Your task to perform on an android device: Go to eBay Image 0: 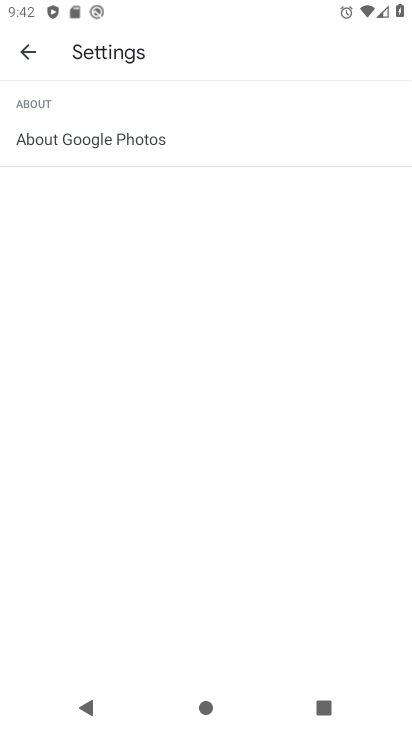
Step 0: press home button
Your task to perform on an android device: Go to eBay Image 1: 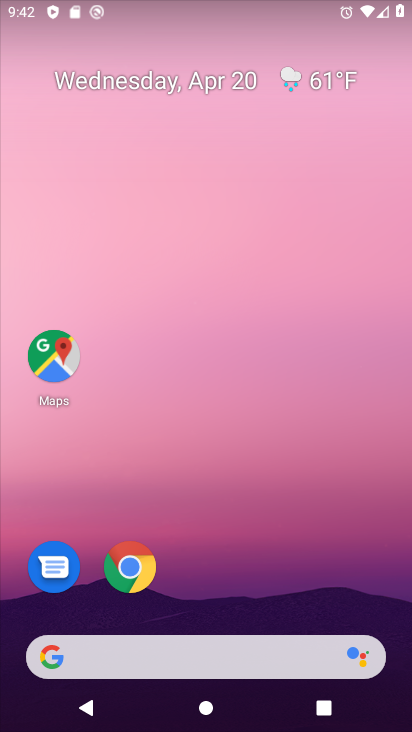
Step 1: click (162, 646)
Your task to perform on an android device: Go to eBay Image 2: 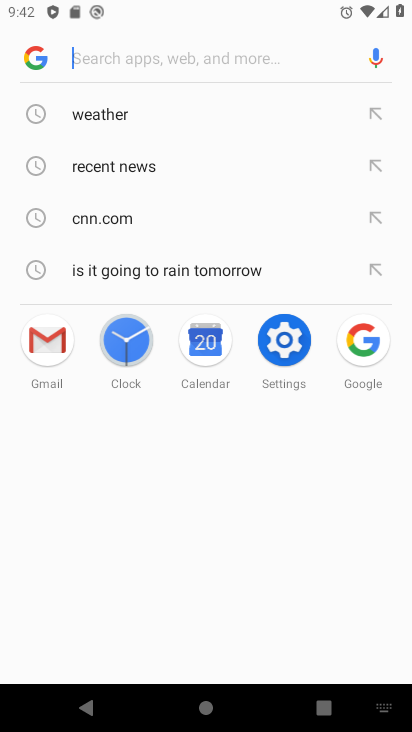
Step 2: type "eBay"
Your task to perform on an android device: Go to eBay Image 3: 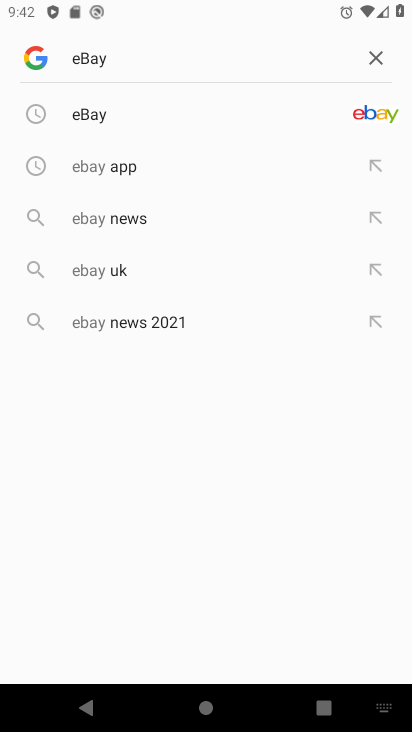
Step 3: click (123, 112)
Your task to perform on an android device: Go to eBay Image 4: 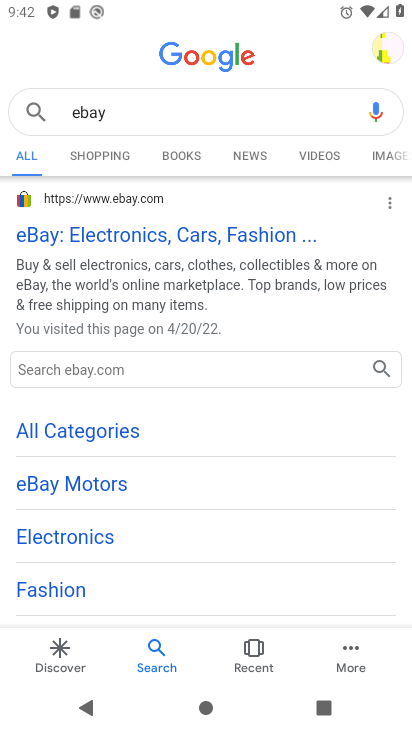
Step 4: click (142, 239)
Your task to perform on an android device: Go to eBay Image 5: 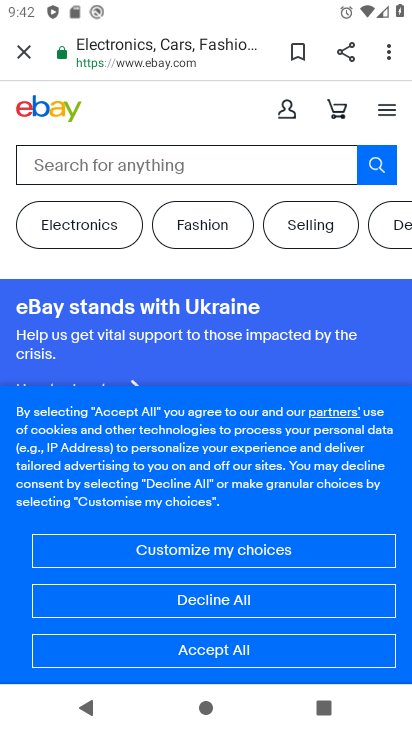
Step 5: task complete